Your task to perform on an android device: check storage Image 0: 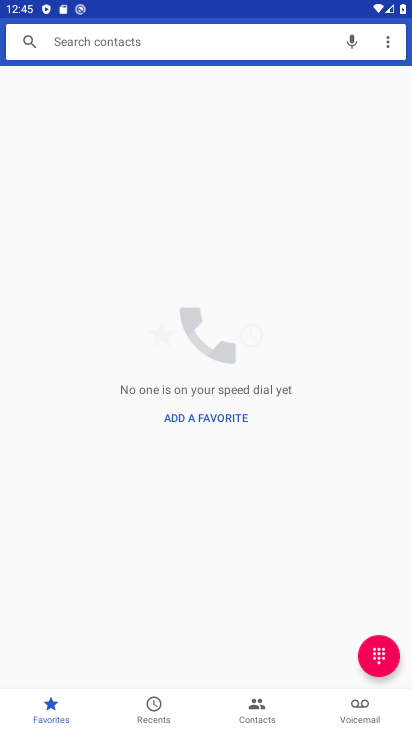
Step 0: press home button
Your task to perform on an android device: check storage Image 1: 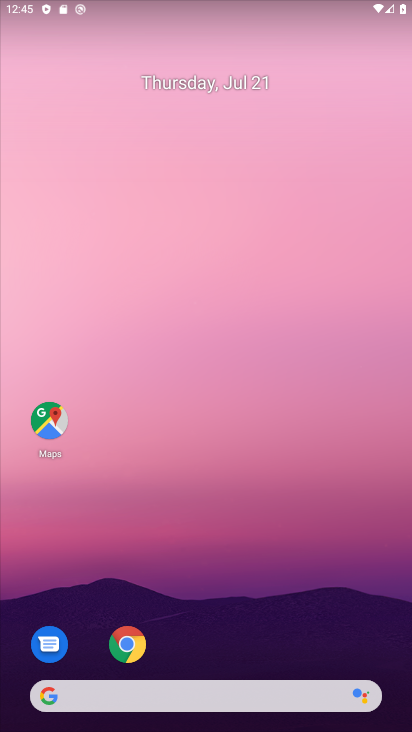
Step 1: drag from (201, 675) to (158, 75)
Your task to perform on an android device: check storage Image 2: 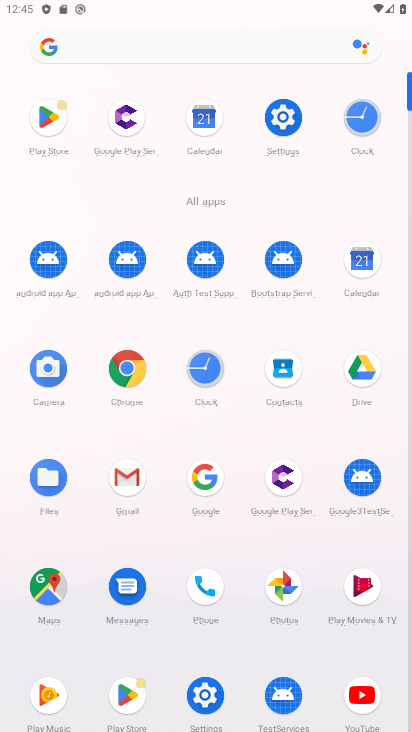
Step 2: click (289, 99)
Your task to perform on an android device: check storage Image 3: 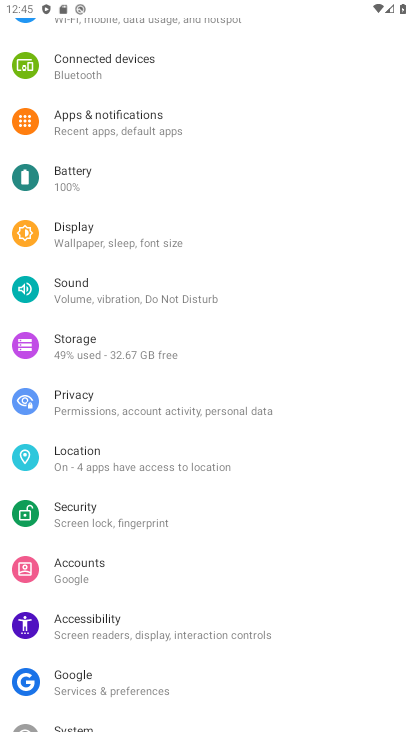
Step 3: click (69, 353)
Your task to perform on an android device: check storage Image 4: 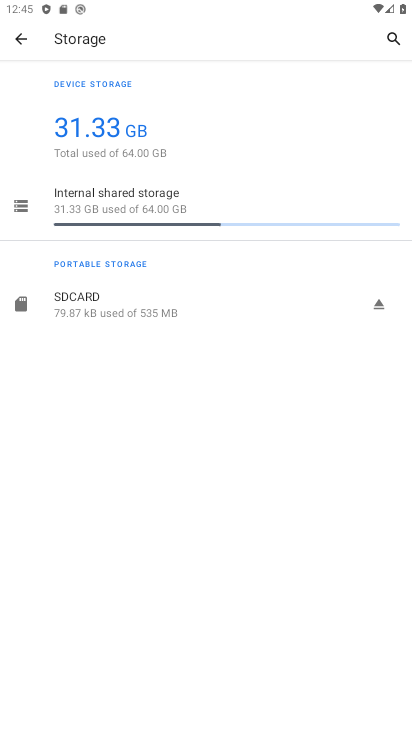
Step 4: click (111, 198)
Your task to perform on an android device: check storage Image 5: 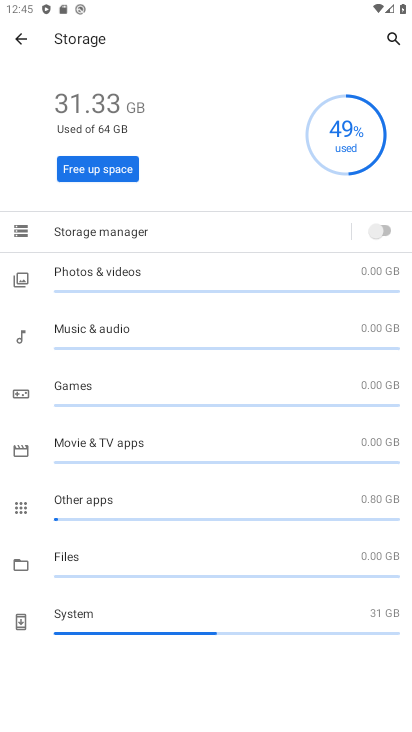
Step 5: task complete